Your task to perform on an android device: turn on airplane mode Image 0: 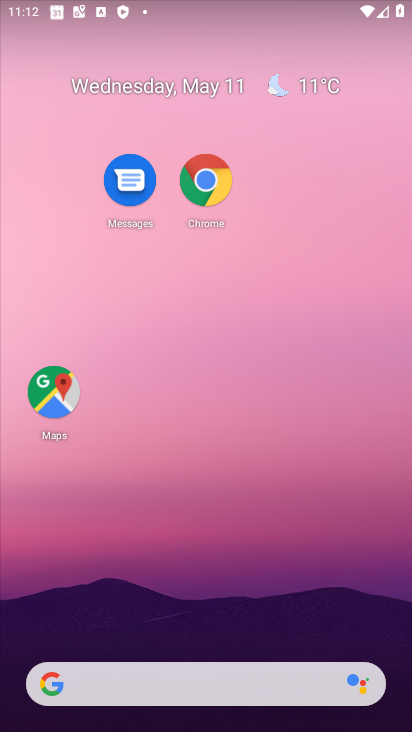
Step 0: drag from (269, 203) to (289, 122)
Your task to perform on an android device: turn on airplane mode Image 1: 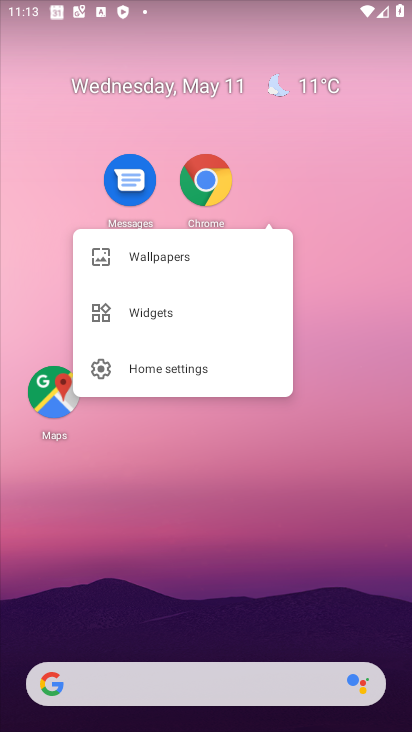
Step 1: click (251, 549)
Your task to perform on an android device: turn on airplane mode Image 2: 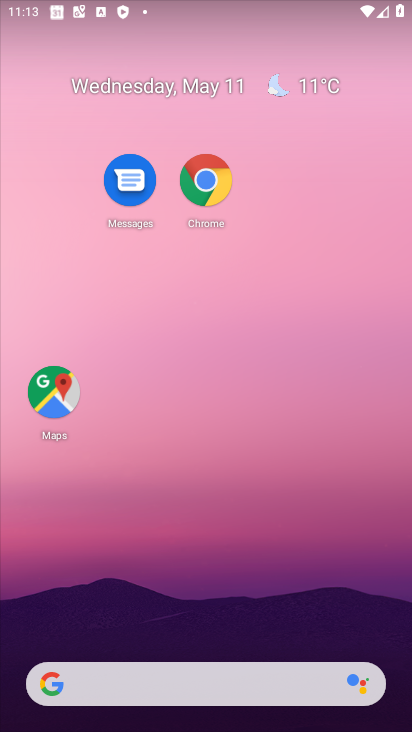
Step 2: drag from (247, 607) to (336, 120)
Your task to perform on an android device: turn on airplane mode Image 3: 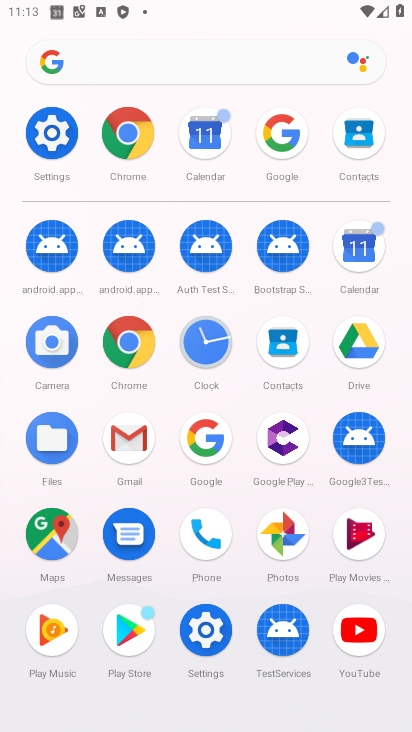
Step 3: click (35, 145)
Your task to perform on an android device: turn on airplane mode Image 4: 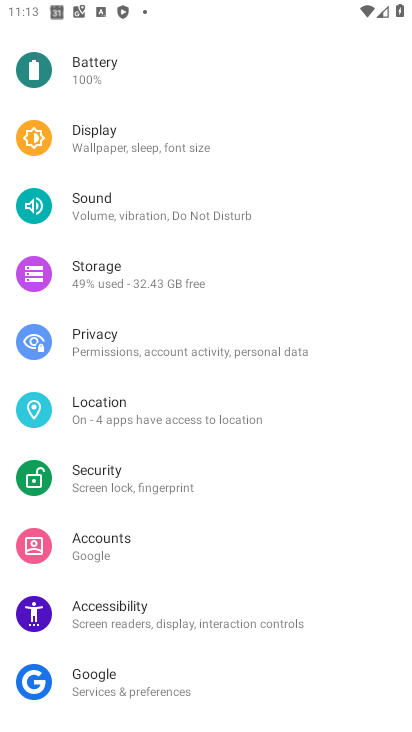
Step 4: click (129, 448)
Your task to perform on an android device: turn on airplane mode Image 5: 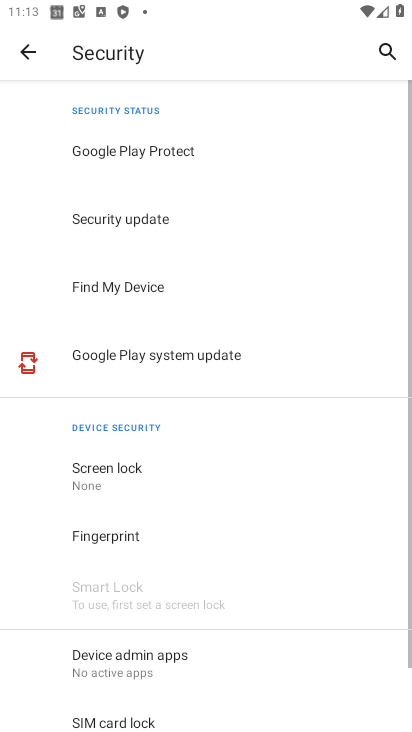
Step 5: drag from (182, 179) to (216, 676)
Your task to perform on an android device: turn on airplane mode Image 6: 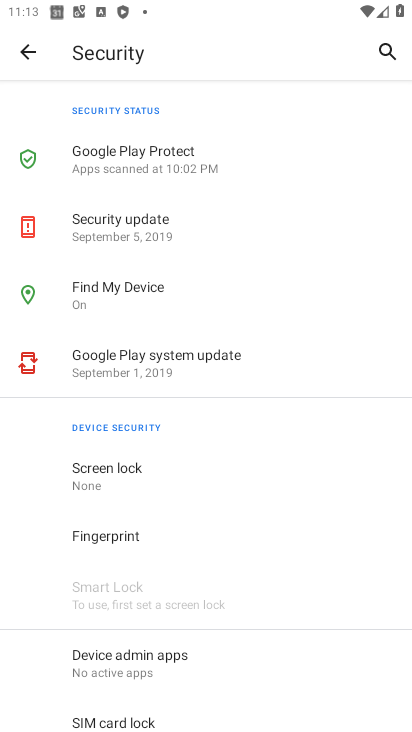
Step 6: press back button
Your task to perform on an android device: turn on airplane mode Image 7: 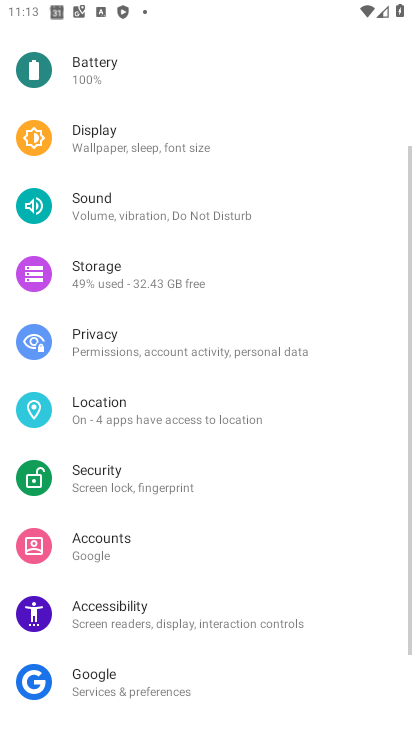
Step 7: drag from (234, 179) to (231, 707)
Your task to perform on an android device: turn on airplane mode Image 8: 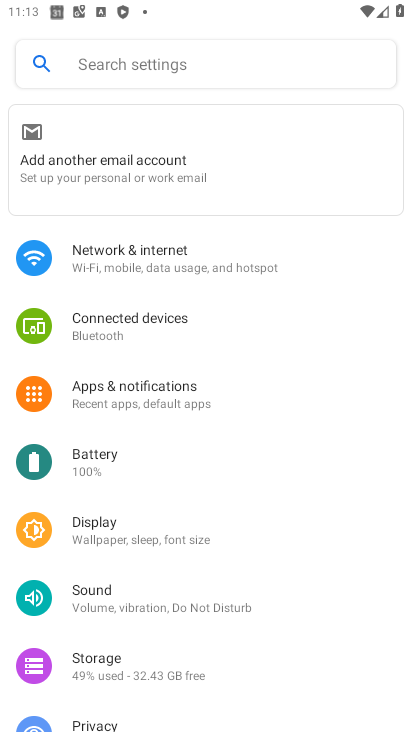
Step 8: click (223, 267)
Your task to perform on an android device: turn on airplane mode Image 9: 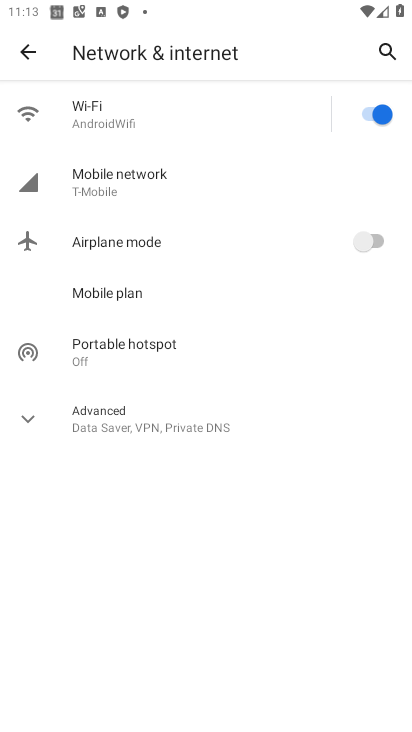
Step 9: click (344, 247)
Your task to perform on an android device: turn on airplane mode Image 10: 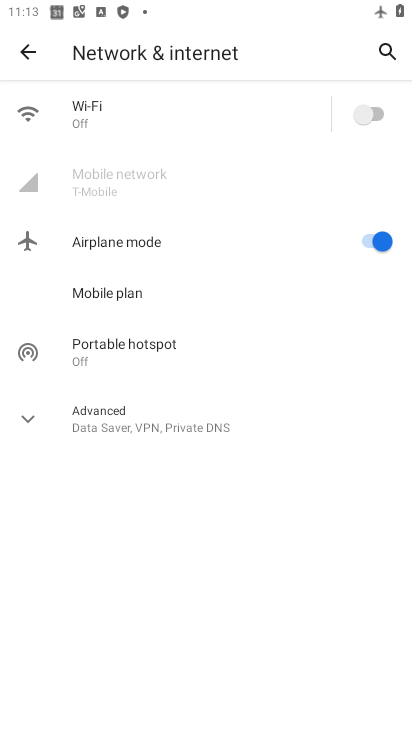
Step 10: task complete